Your task to perform on an android device: Turn off the flashlight Image 0: 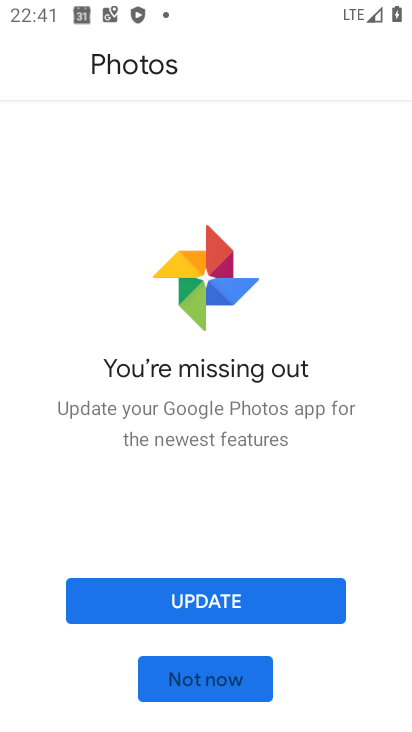
Step 0: drag from (220, 15) to (185, 692)
Your task to perform on an android device: Turn off the flashlight Image 1: 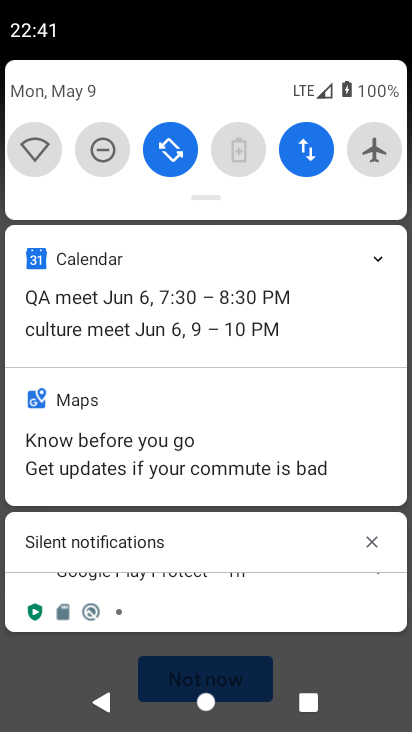
Step 1: drag from (253, 109) to (230, 467)
Your task to perform on an android device: Turn off the flashlight Image 2: 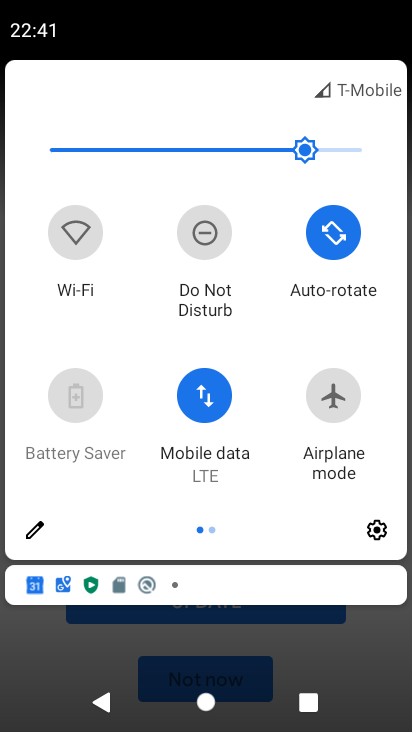
Step 2: click (382, 549)
Your task to perform on an android device: Turn off the flashlight Image 3: 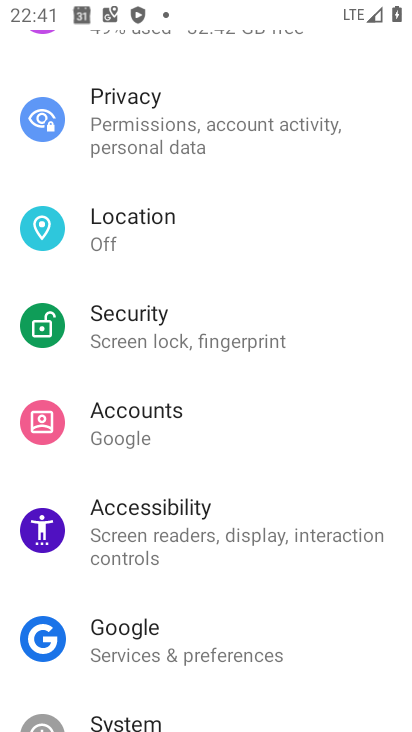
Step 3: task complete